Your task to perform on an android device: Is it going to rain today? Image 0: 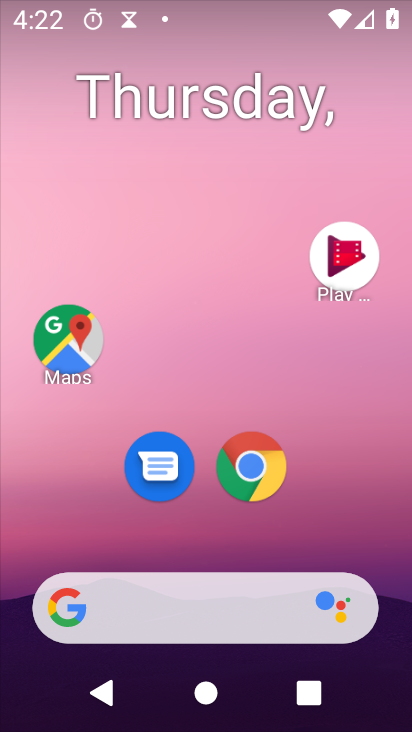
Step 0: drag from (253, 610) to (289, 5)
Your task to perform on an android device: Is it going to rain today? Image 1: 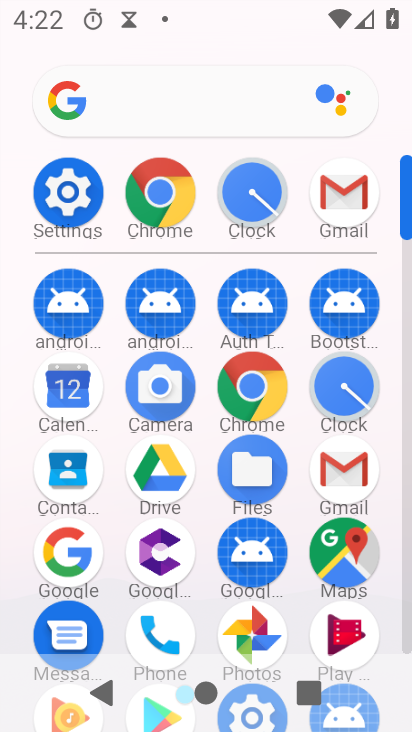
Step 1: click (269, 386)
Your task to perform on an android device: Is it going to rain today? Image 2: 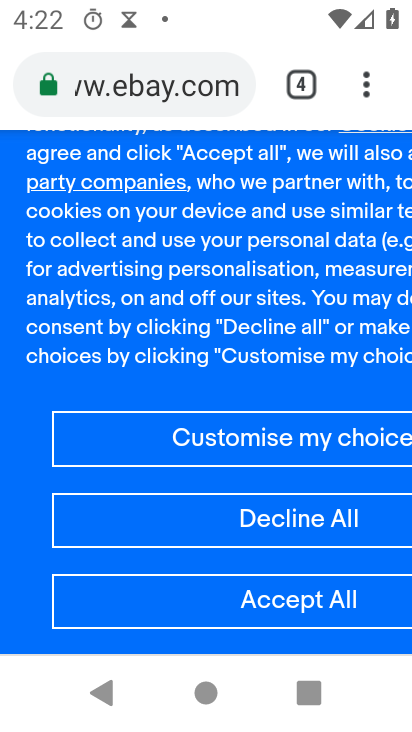
Step 2: click (207, 78)
Your task to perform on an android device: Is it going to rain today? Image 3: 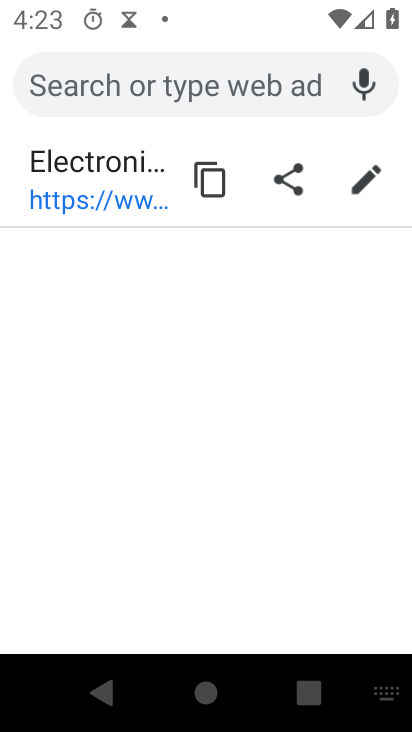
Step 3: type "going to rain today"
Your task to perform on an android device: Is it going to rain today? Image 4: 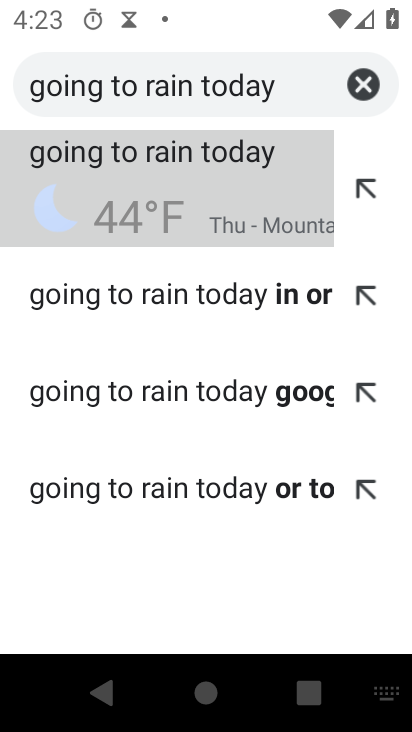
Step 4: click (235, 184)
Your task to perform on an android device: Is it going to rain today? Image 5: 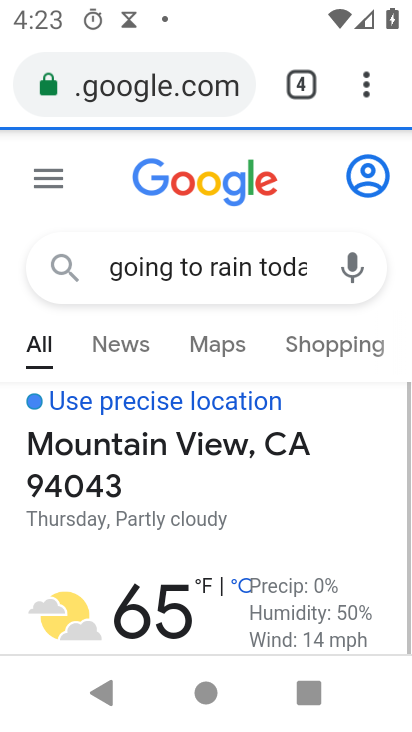
Step 5: task complete